Your task to perform on an android device: Set an alarm for 6am Image 0: 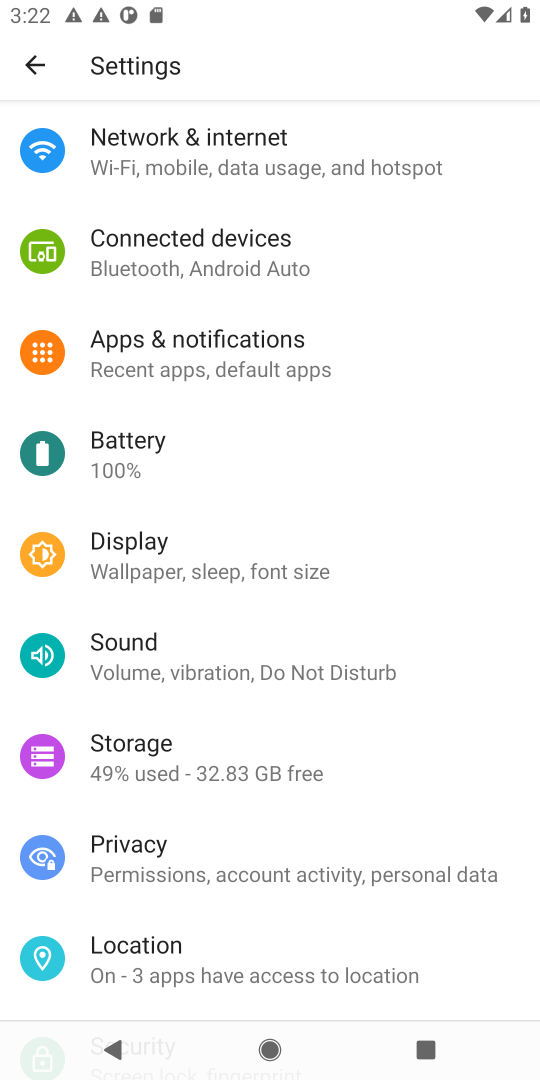
Step 0: press home button
Your task to perform on an android device: Set an alarm for 6am Image 1: 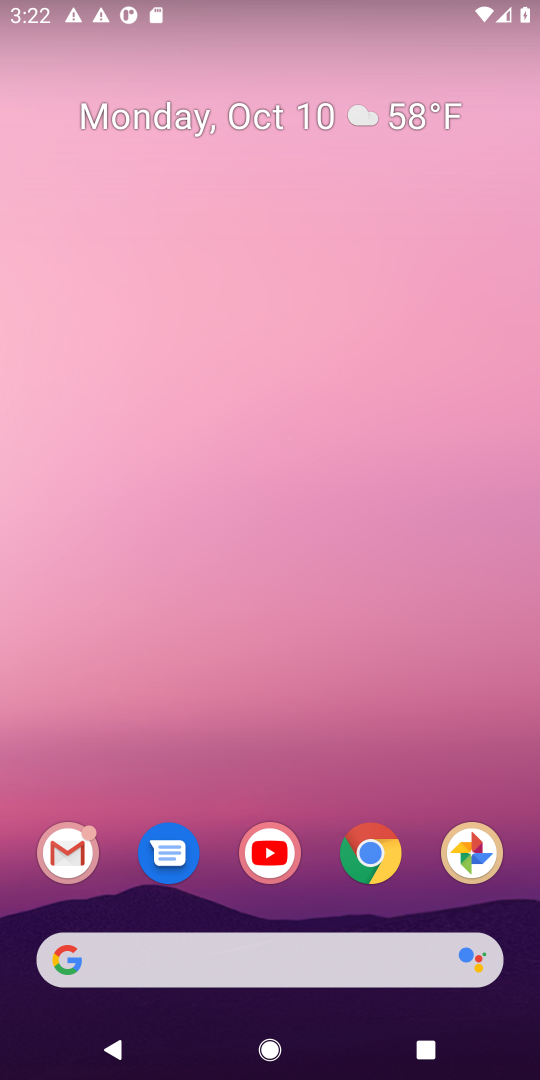
Step 1: drag from (364, 768) to (383, 53)
Your task to perform on an android device: Set an alarm for 6am Image 2: 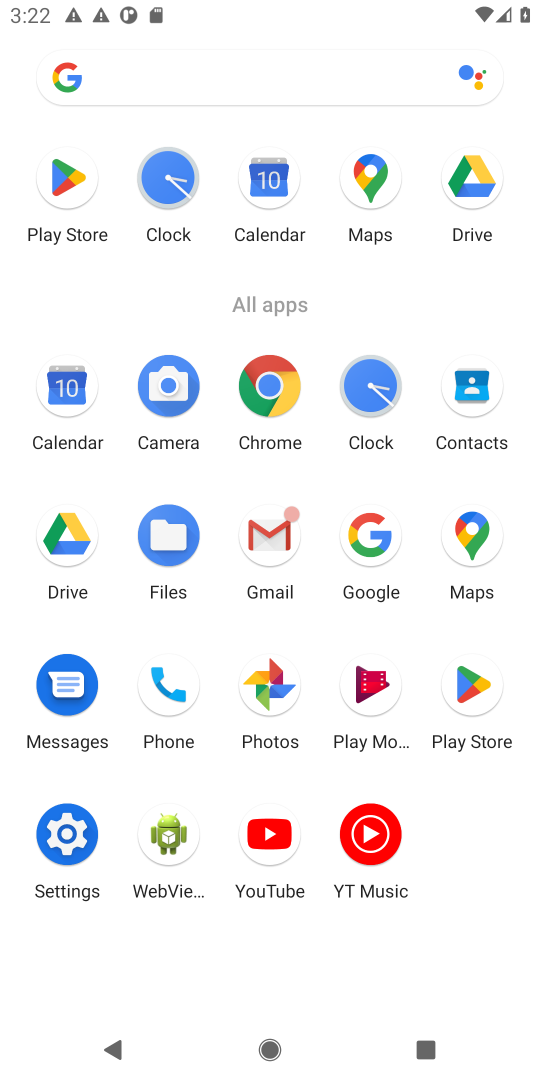
Step 2: click (155, 177)
Your task to perform on an android device: Set an alarm for 6am Image 3: 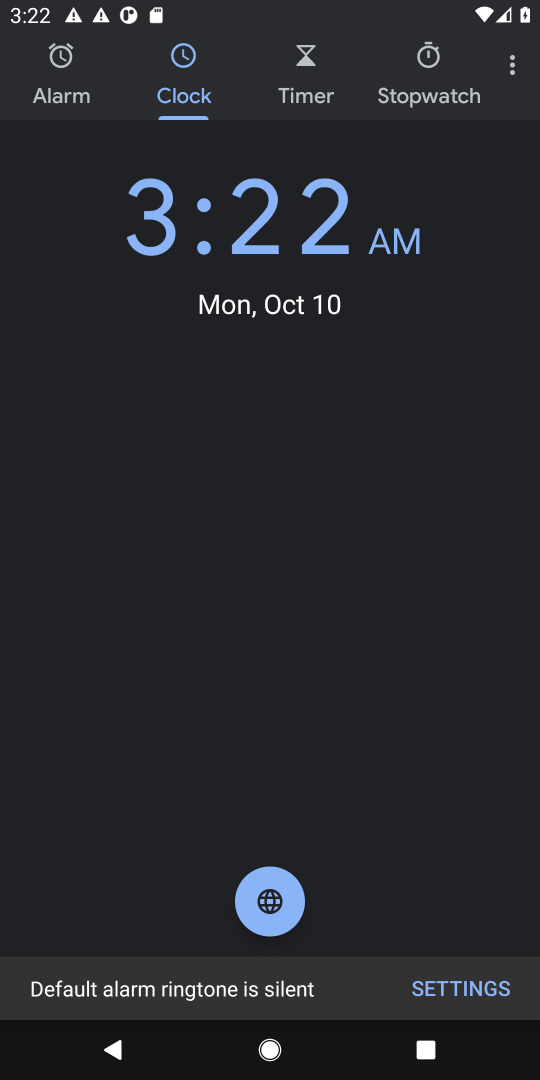
Step 3: click (61, 63)
Your task to perform on an android device: Set an alarm for 6am Image 4: 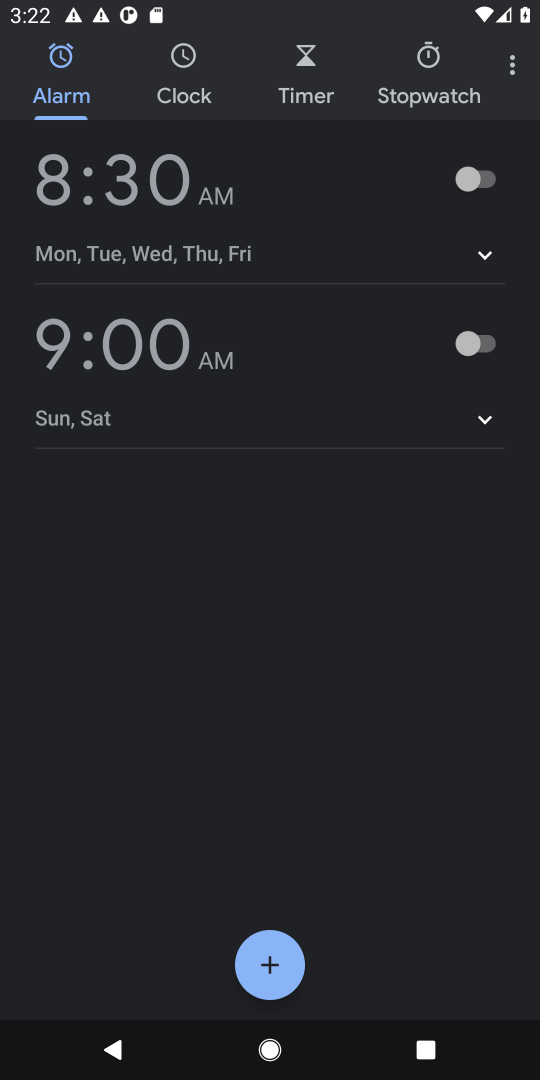
Step 4: click (262, 954)
Your task to perform on an android device: Set an alarm for 6am Image 5: 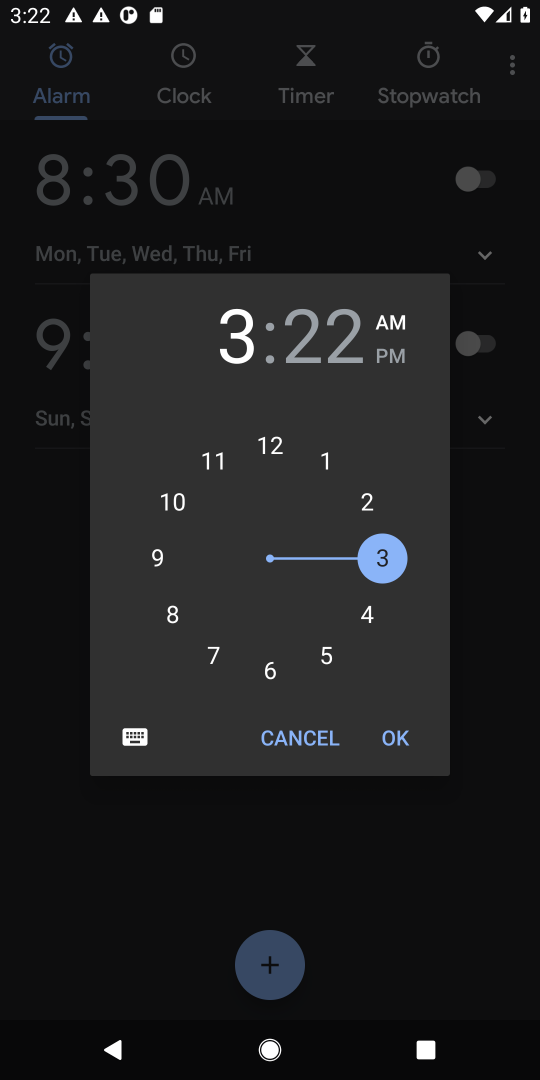
Step 5: click (269, 677)
Your task to perform on an android device: Set an alarm for 6am Image 6: 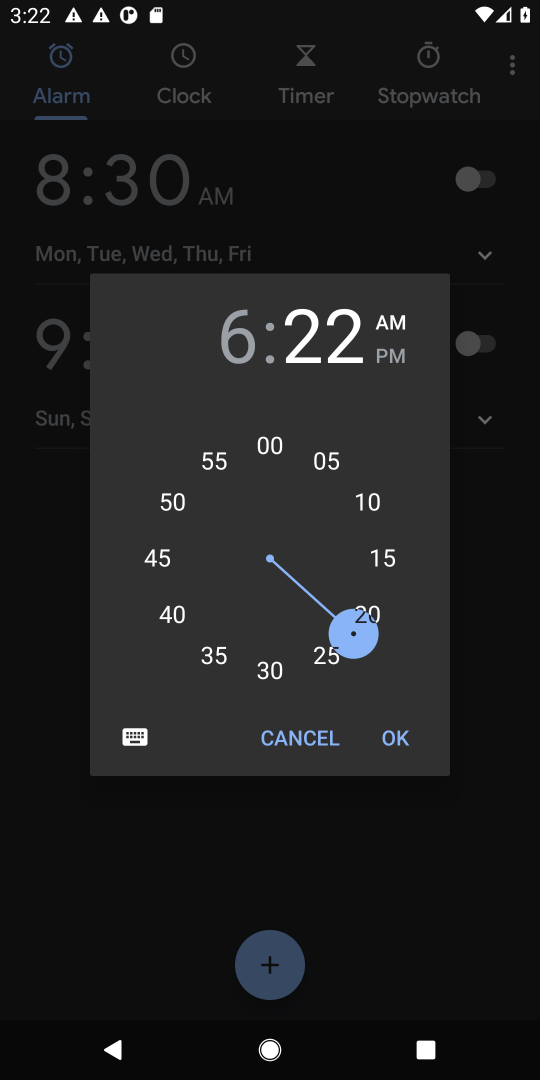
Step 6: click (269, 451)
Your task to perform on an android device: Set an alarm for 6am Image 7: 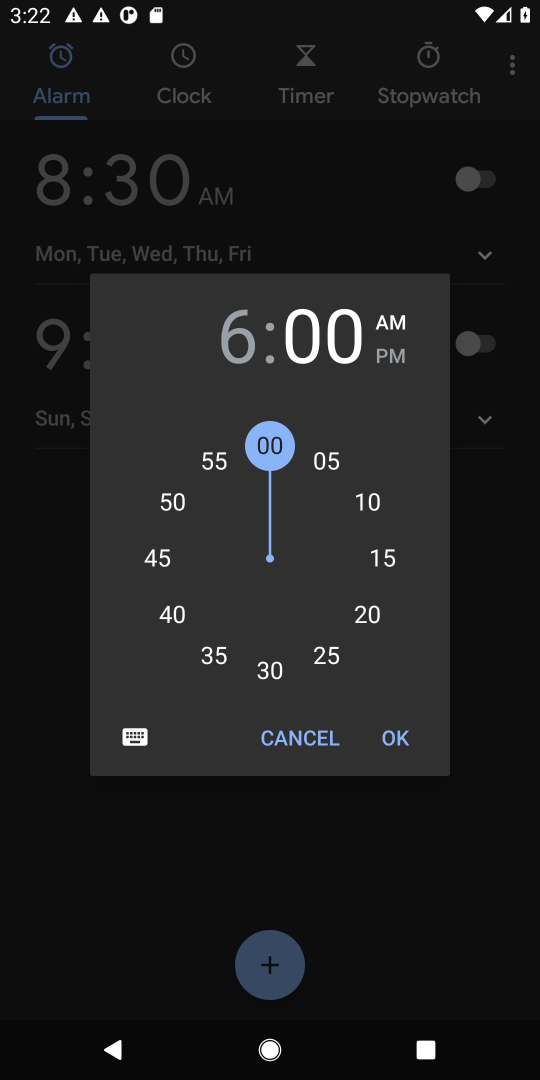
Step 7: click (377, 345)
Your task to perform on an android device: Set an alarm for 6am Image 8: 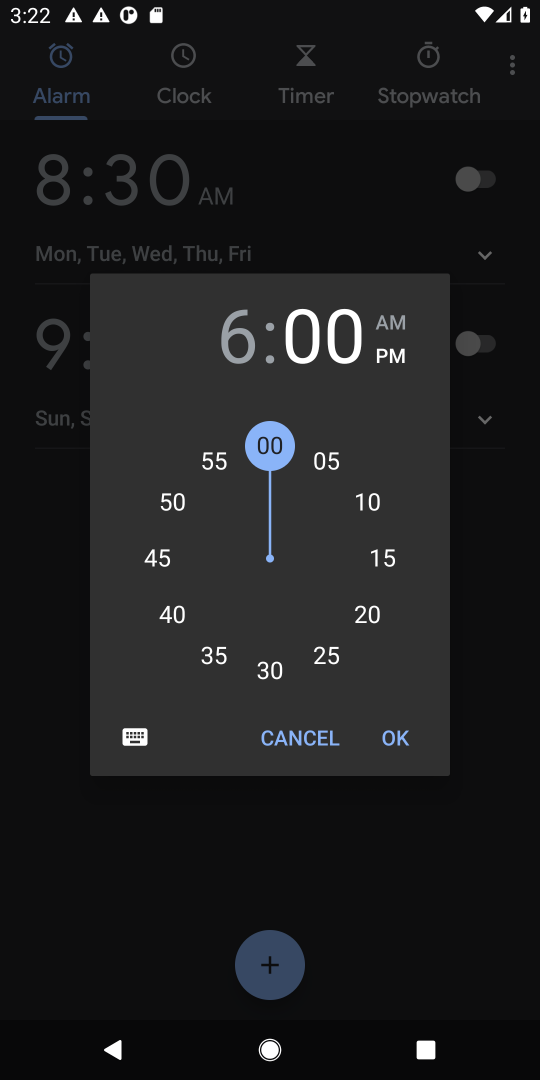
Step 8: click (396, 733)
Your task to perform on an android device: Set an alarm for 6am Image 9: 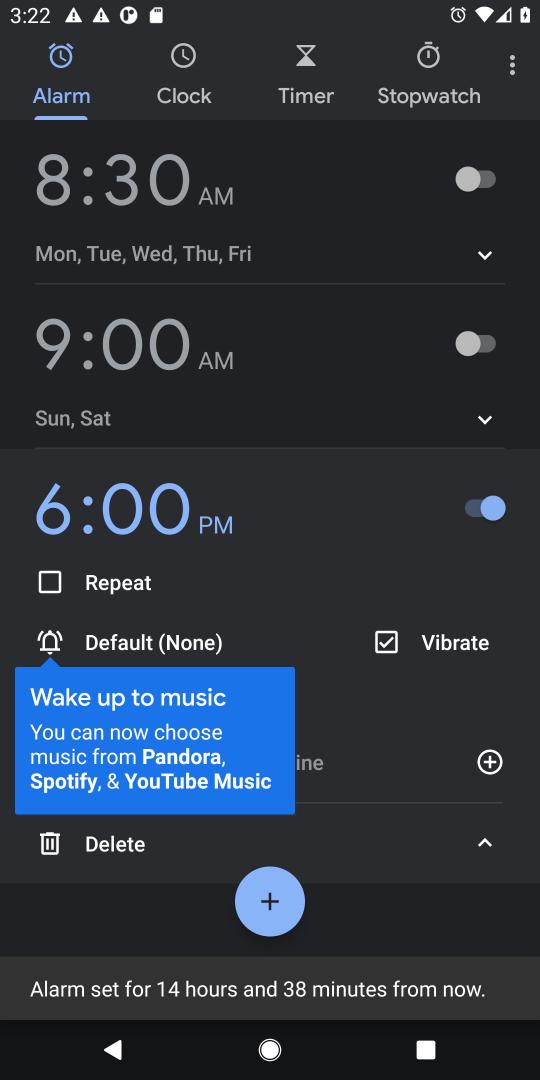
Step 9: task complete